Your task to perform on an android device: all mails in gmail Image 0: 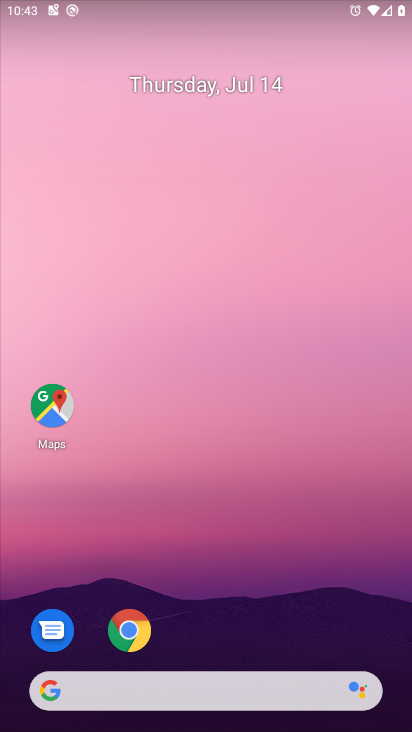
Step 0: drag from (45, 591) to (193, 43)
Your task to perform on an android device: all mails in gmail Image 1: 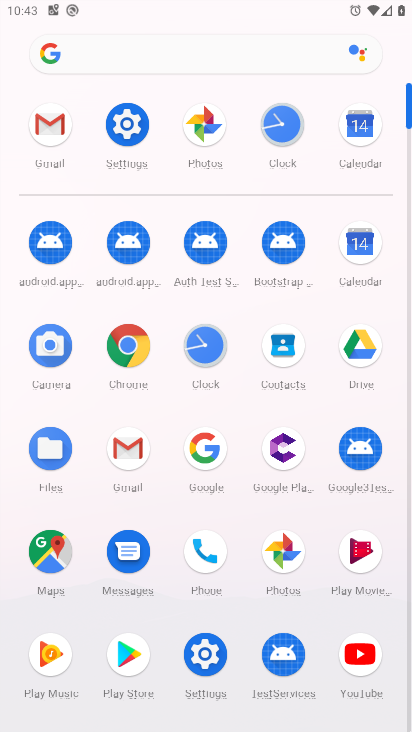
Step 1: click (110, 452)
Your task to perform on an android device: all mails in gmail Image 2: 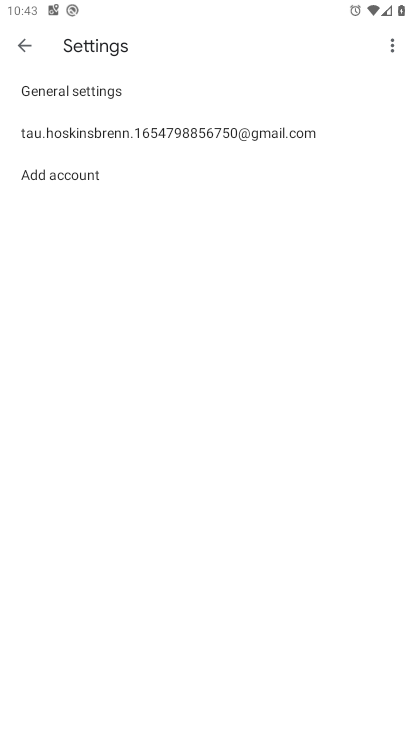
Step 2: click (20, 50)
Your task to perform on an android device: all mails in gmail Image 3: 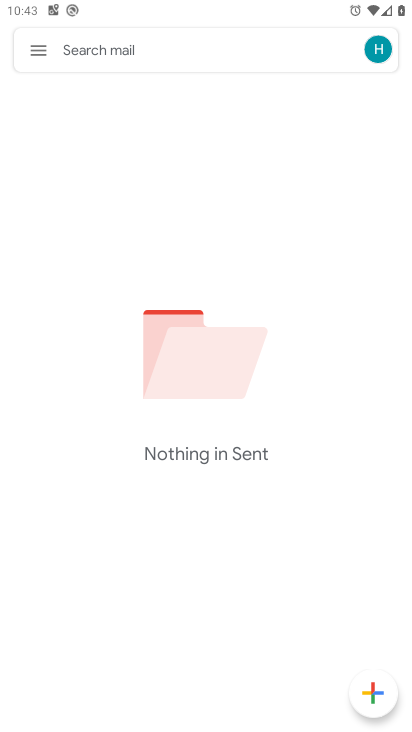
Step 3: click (35, 51)
Your task to perform on an android device: all mails in gmail Image 4: 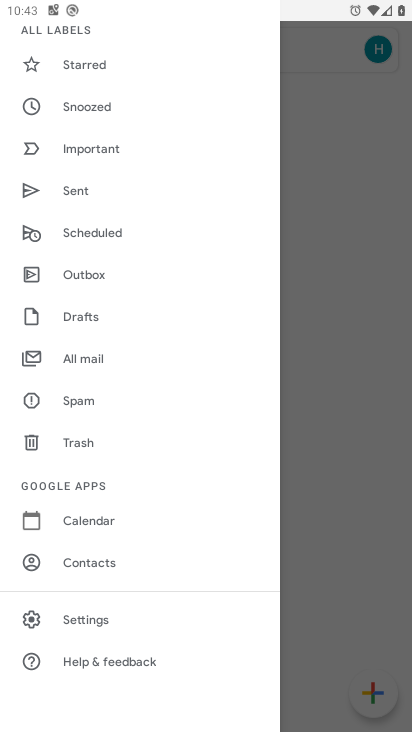
Step 4: click (93, 359)
Your task to perform on an android device: all mails in gmail Image 5: 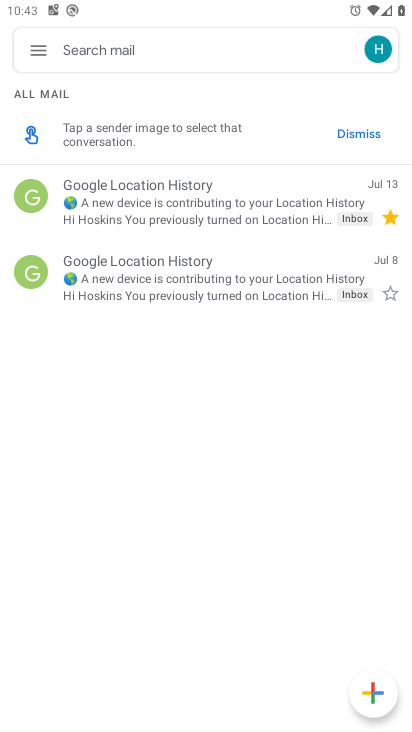
Step 5: task complete